Your task to perform on an android device: change the clock display to digital Image 0: 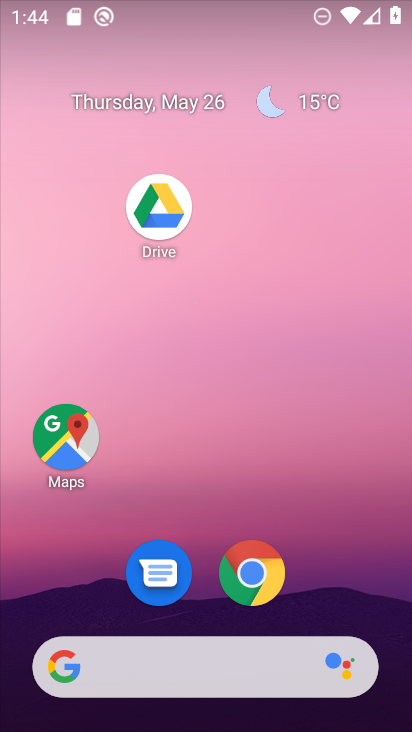
Step 0: drag from (326, 623) to (289, 160)
Your task to perform on an android device: change the clock display to digital Image 1: 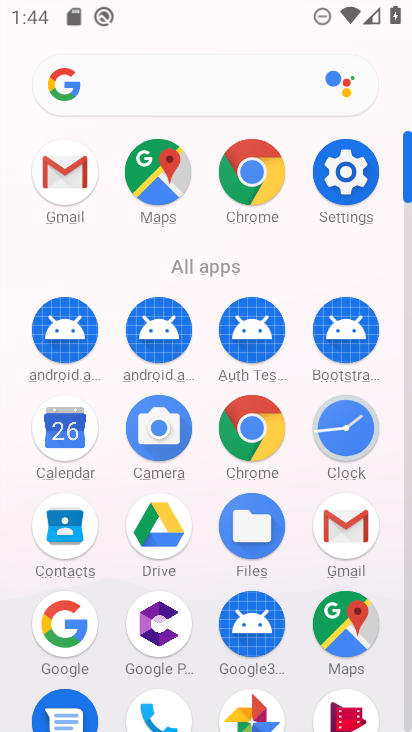
Step 1: click (334, 418)
Your task to perform on an android device: change the clock display to digital Image 2: 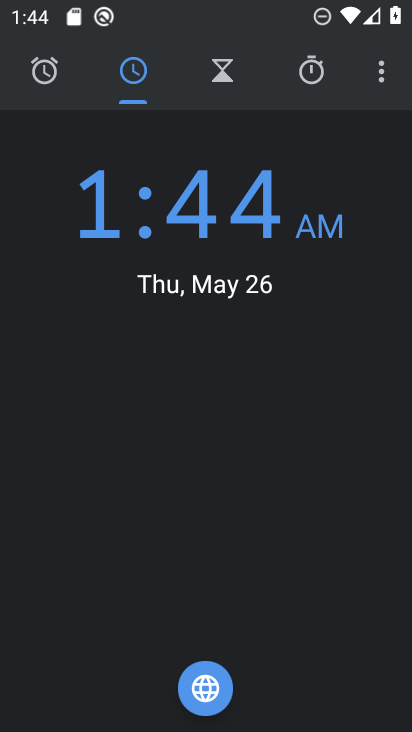
Step 2: click (404, 70)
Your task to perform on an android device: change the clock display to digital Image 3: 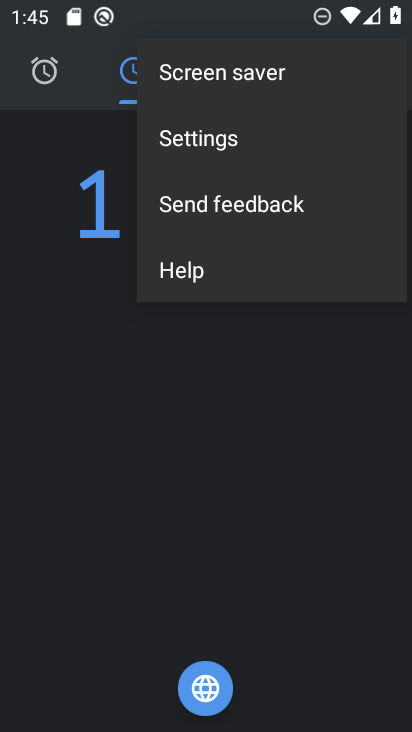
Step 3: click (225, 146)
Your task to perform on an android device: change the clock display to digital Image 4: 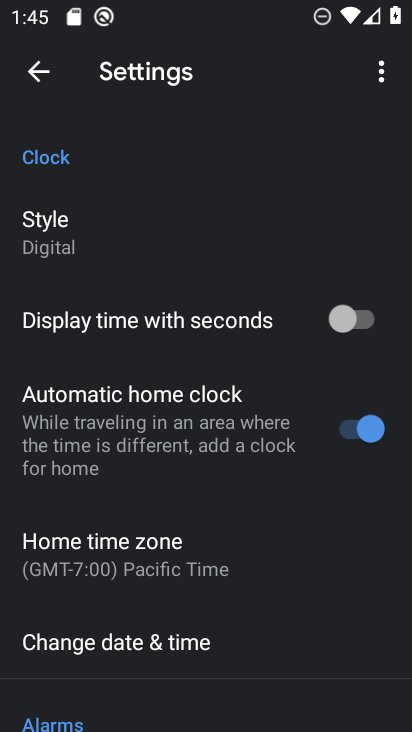
Step 4: task complete